Your task to perform on an android device: Go to accessibility settings Image 0: 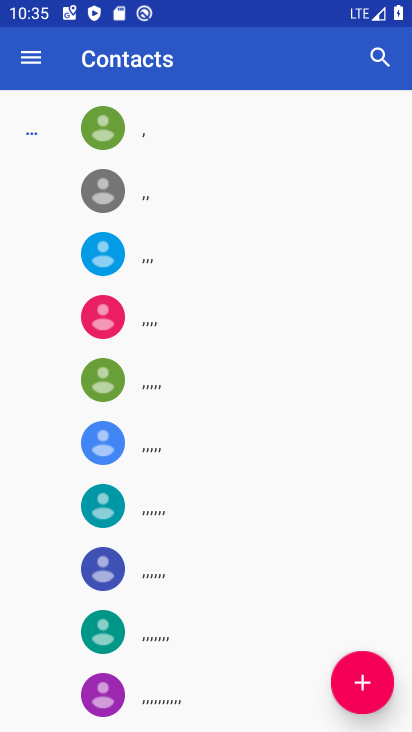
Step 0: press home button
Your task to perform on an android device: Go to accessibility settings Image 1: 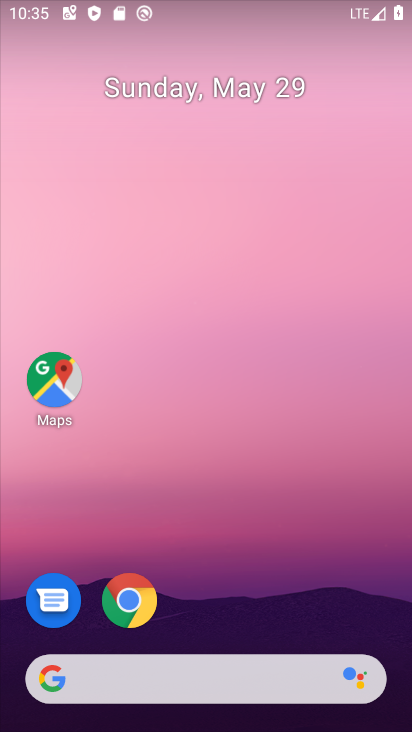
Step 1: drag from (406, 670) to (254, 352)
Your task to perform on an android device: Go to accessibility settings Image 2: 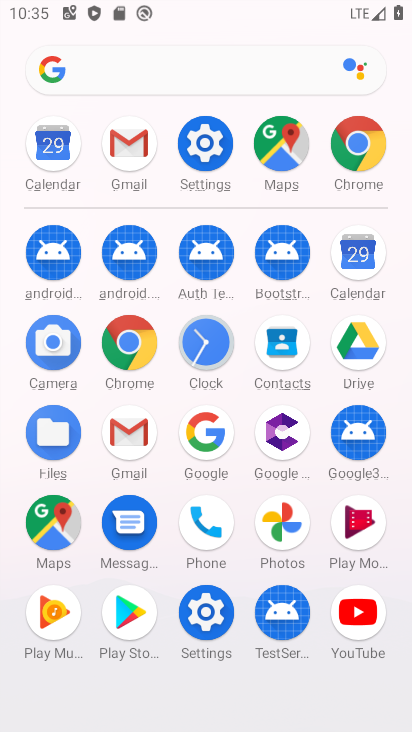
Step 2: click (216, 607)
Your task to perform on an android device: Go to accessibility settings Image 3: 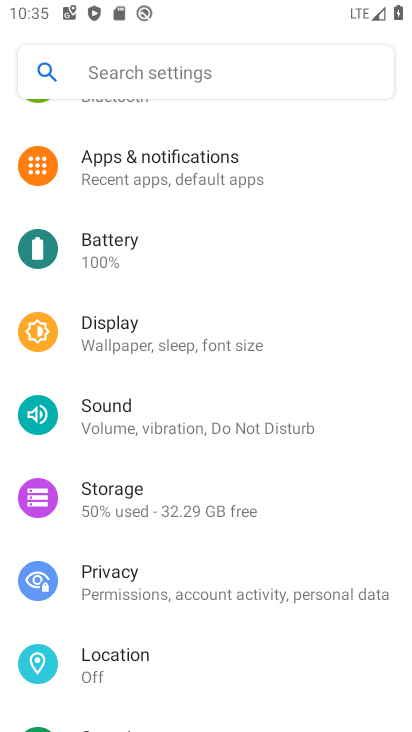
Step 3: drag from (241, 649) to (278, 190)
Your task to perform on an android device: Go to accessibility settings Image 4: 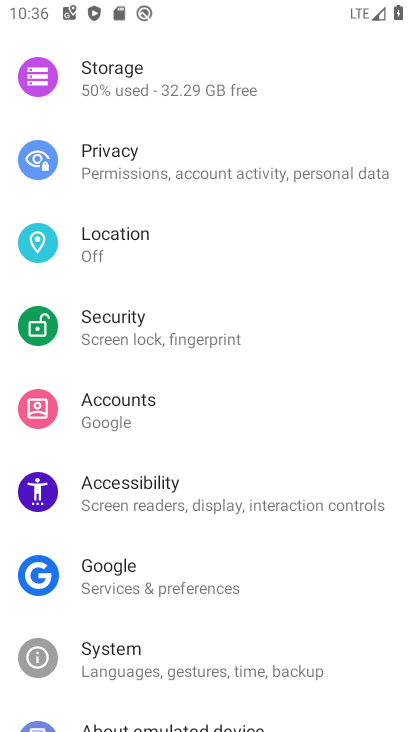
Step 4: drag from (269, 549) to (267, 126)
Your task to perform on an android device: Go to accessibility settings Image 5: 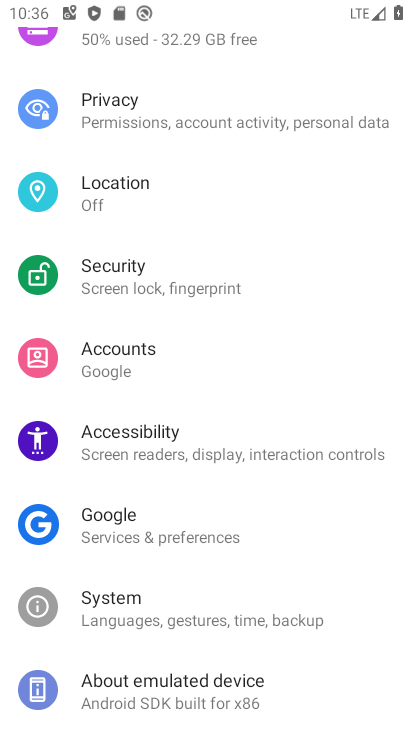
Step 5: click (182, 692)
Your task to perform on an android device: Go to accessibility settings Image 6: 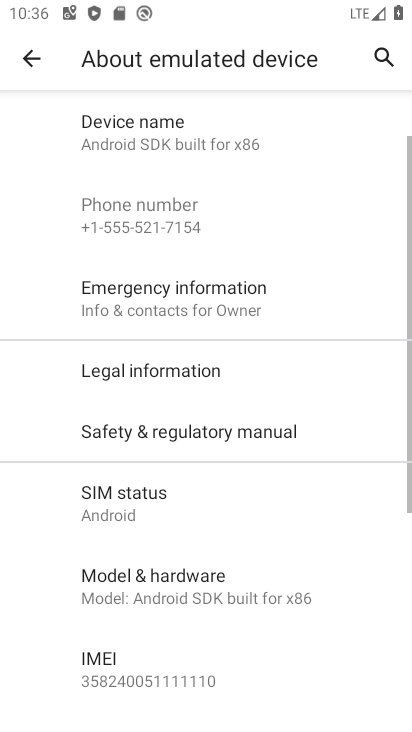
Step 6: click (29, 68)
Your task to perform on an android device: Go to accessibility settings Image 7: 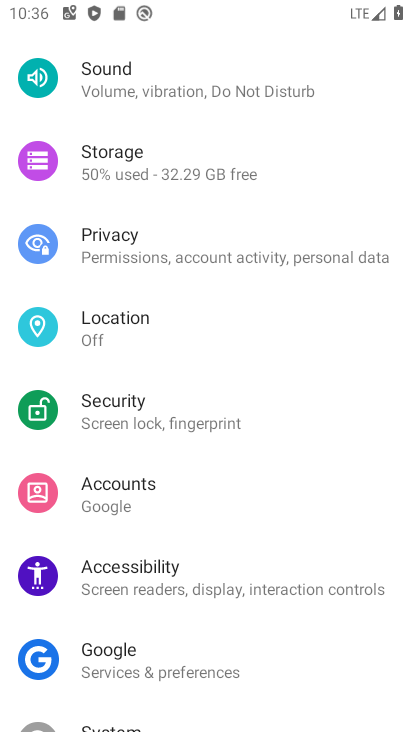
Step 7: drag from (182, 639) to (181, 224)
Your task to perform on an android device: Go to accessibility settings Image 8: 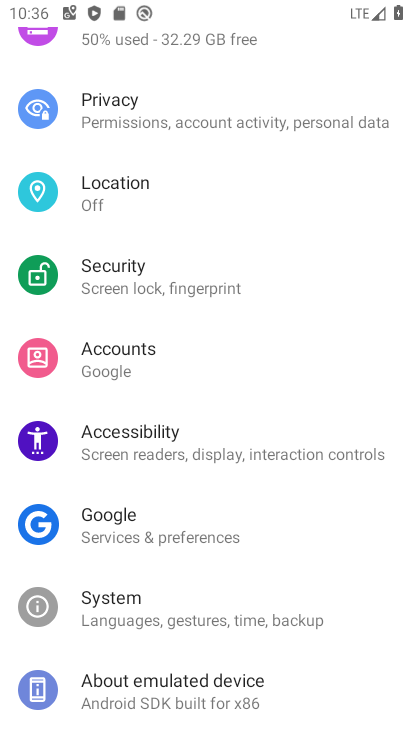
Step 8: click (146, 449)
Your task to perform on an android device: Go to accessibility settings Image 9: 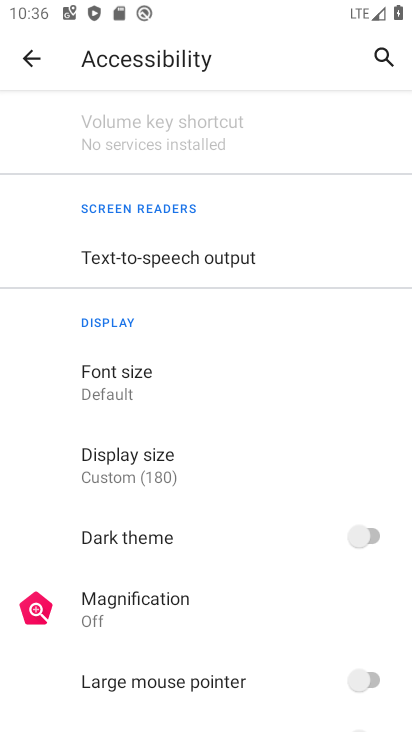
Step 9: task complete